Your task to perform on an android device: Check the weather Image 0: 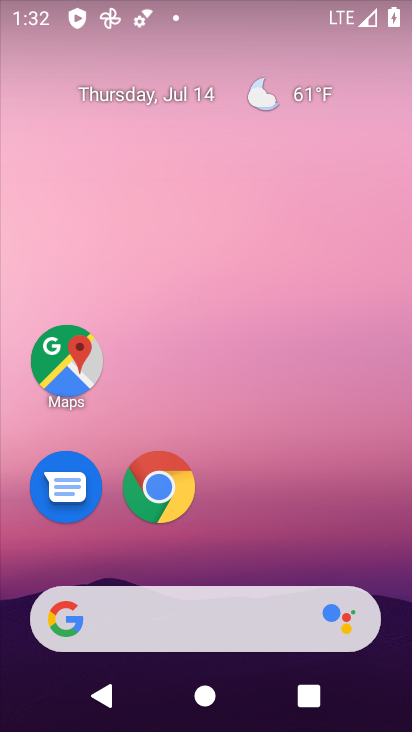
Step 0: click (226, 608)
Your task to perform on an android device: Check the weather Image 1: 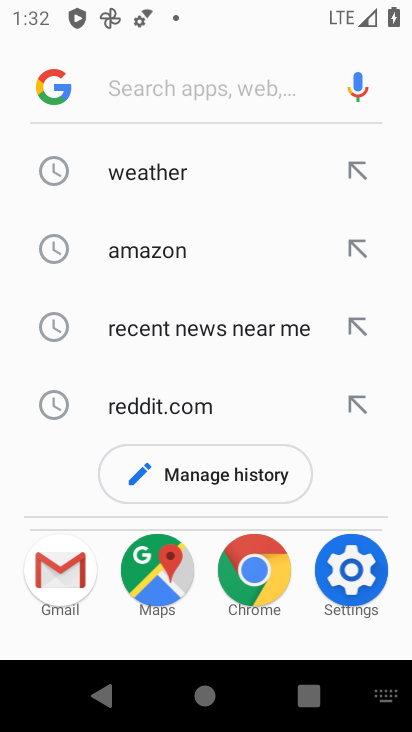
Step 1: click (180, 183)
Your task to perform on an android device: Check the weather Image 2: 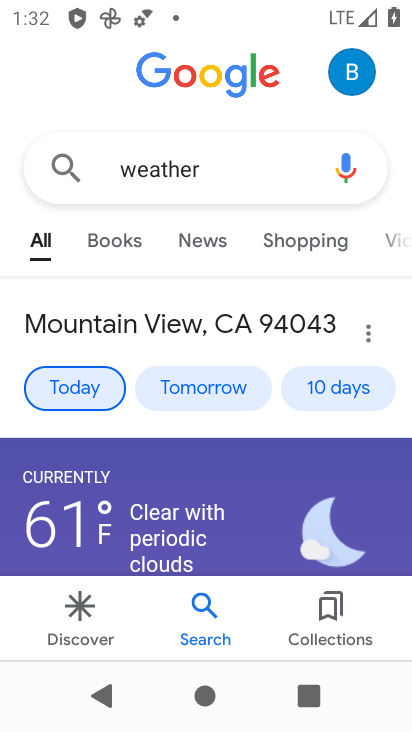
Step 2: task complete